Your task to perform on an android device: When is my next appointment? Image 0: 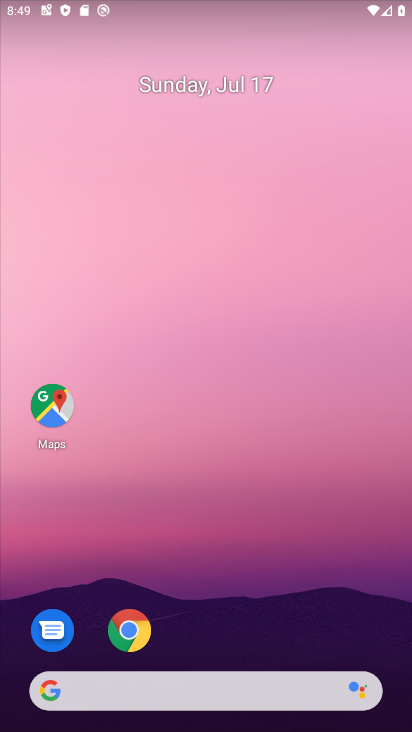
Step 0: drag from (286, 713) to (248, 91)
Your task to perform on an android device: When is my next appointment? Image 1: 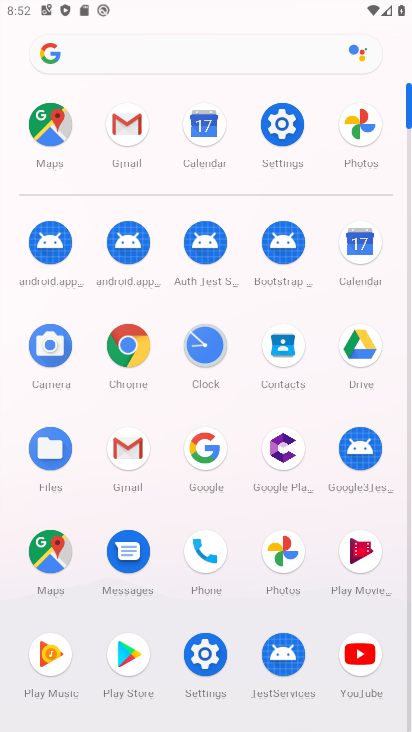
Step 1: click (367, 249)
Your task to perform on an android device: When is my next appointment? Image 2: 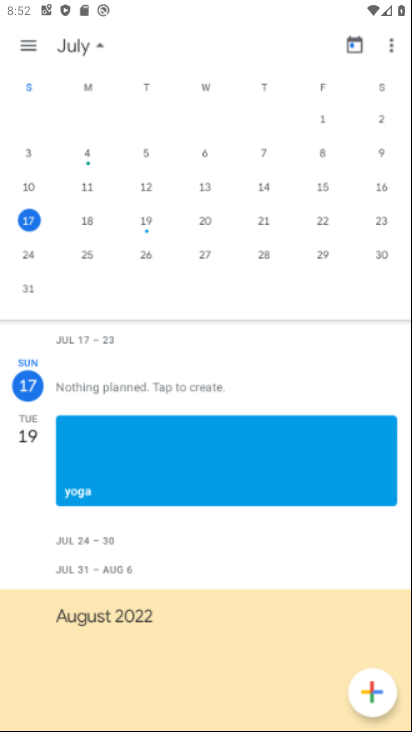
Step 2: click (360, 48)
Your task to perform on an android device: When is my next appointment? Image 3: 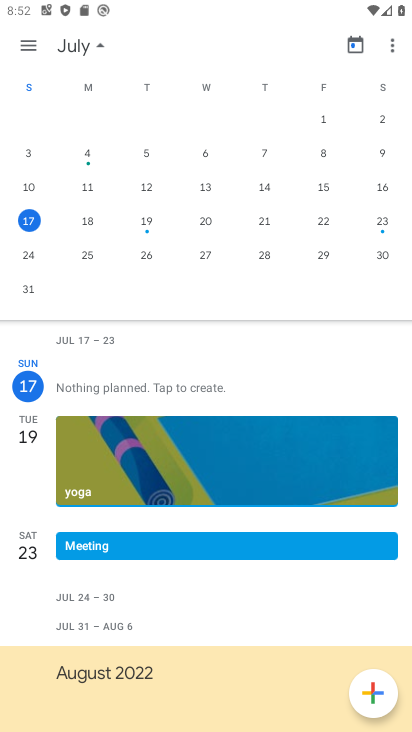
Step 3: task complete